Your task to perform on an android device: delete browsing data in the chrome app Image 0: 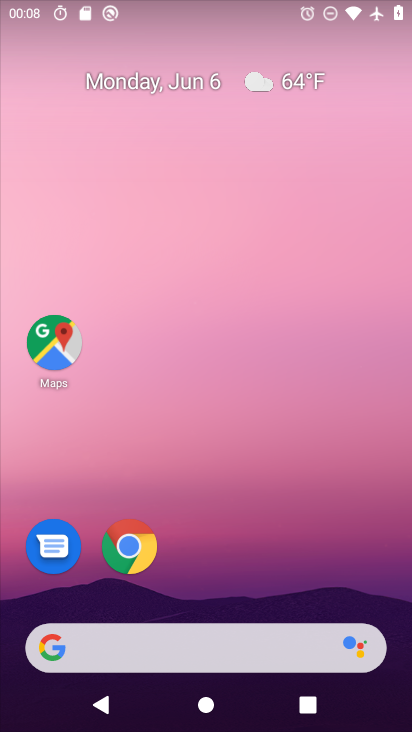
Step 0: drag from (219, 568) to (339, 53)
Your task to perform on an android device: delete browsing data in the chrome app Image 1: 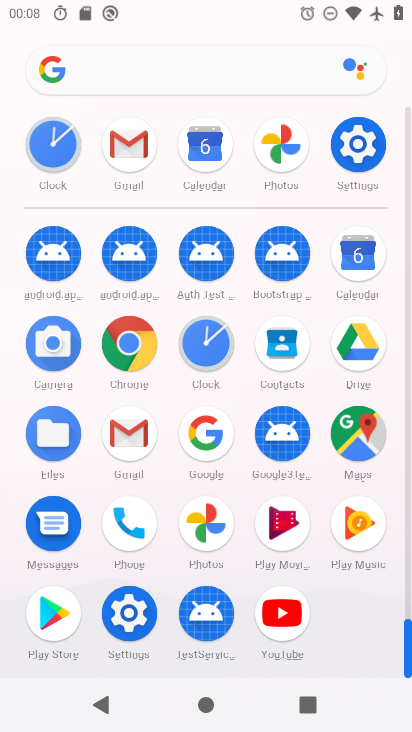
Step 1: click (131, 335)
Your task to perform on an android device: delete browsing data in the chrome app Image 2: 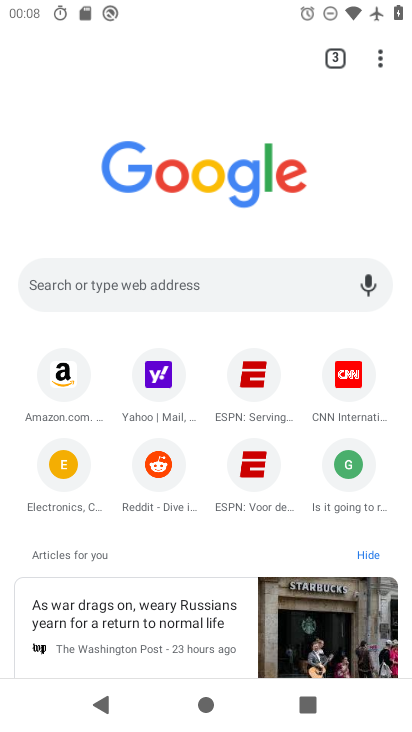
Step 2: drag from (381, 54) to (218, 328)
Your task to perform on an android device: delete browsing data in the chrome app Image 3: 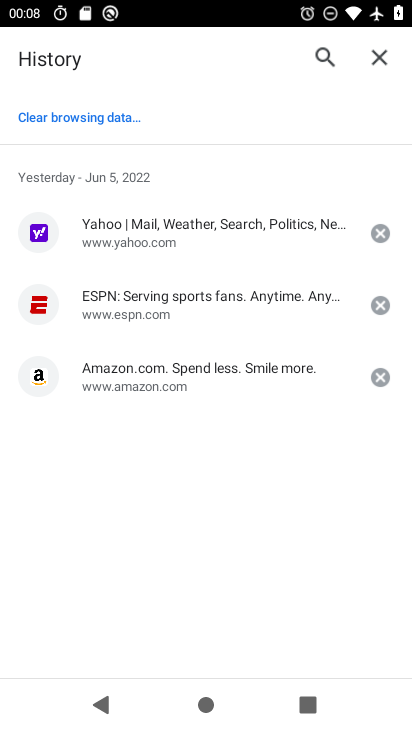
Step 3: click (79, 111)
Your task to perform on an android device: delete browsing data in the chrome app Image 4: 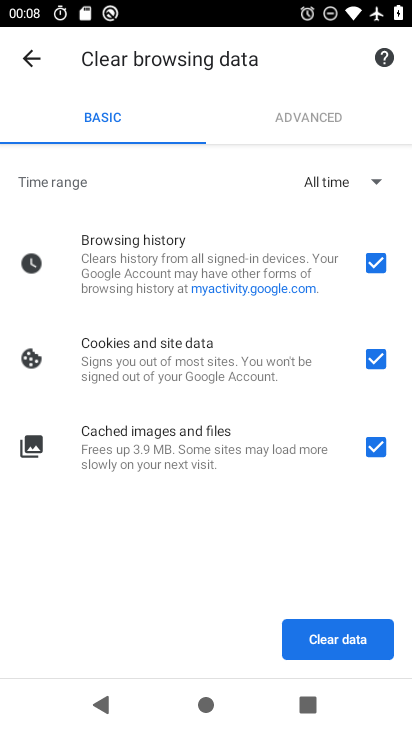
Step 4: click (325, 644)
Your task to perform on an android device: delete browsing data in the chrome app Image 5: 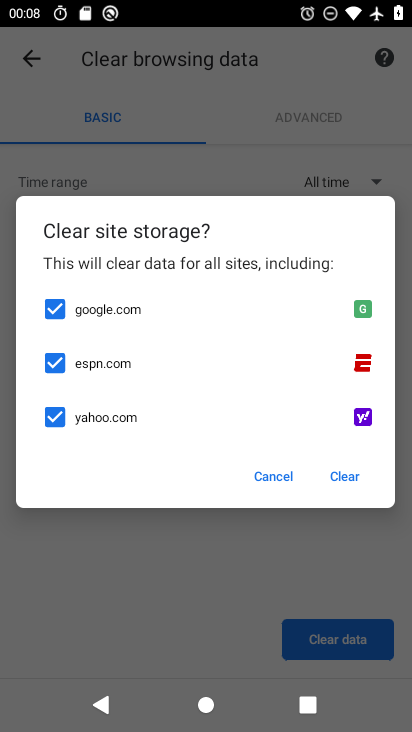
Step 5: click (336, 479)
Your task to perform on an android device: delete browsing data in the chrome app Image 6: 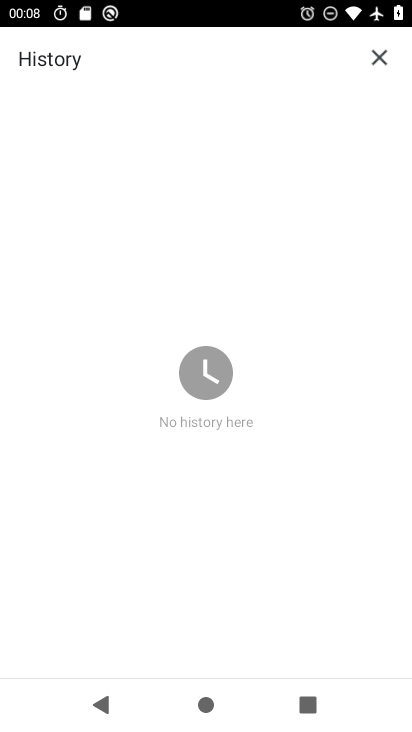
Step 6: task complete